Your task to perform on an android device: Open location settings Image 0: 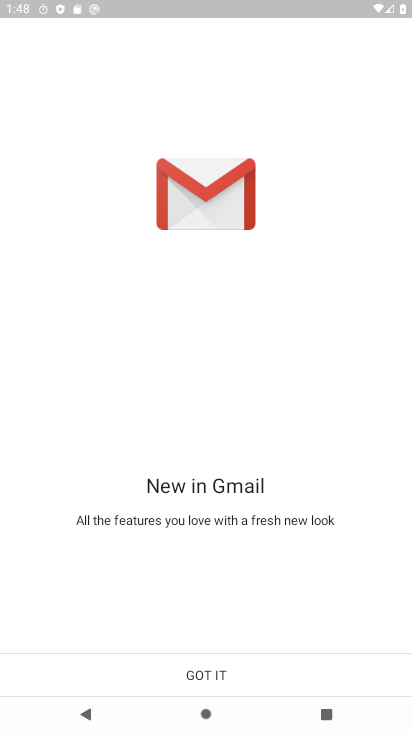
Step 0: press home button
Your task to perform on an android device: Open location settings Image 1: 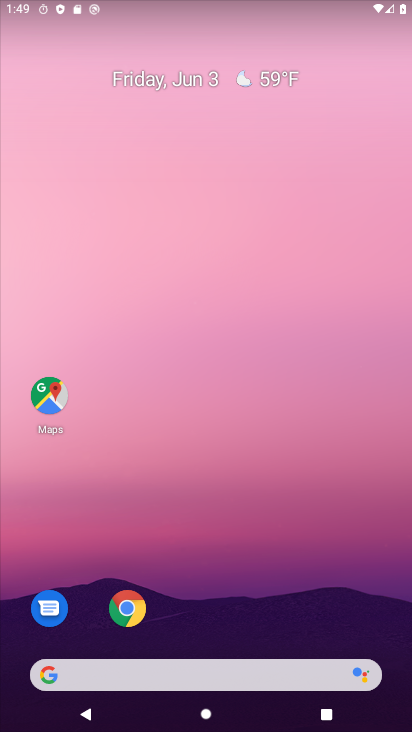
Step 1: drag from (197, 673) to (221, 8)
Your task to perform on an android device: Open location settings Image 2: 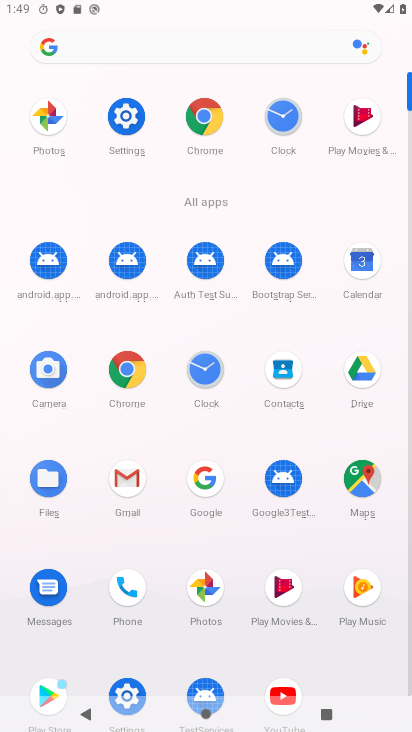
Step 2: click (124, 690)
Your task to perform on an android device: Open location settings Image 3: 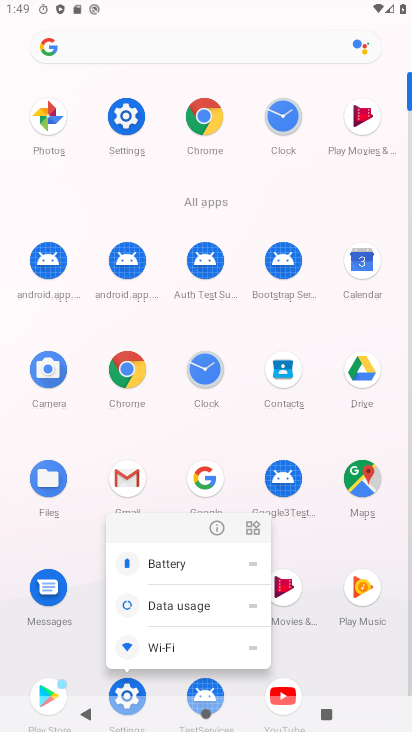
Step 3: click (125, 687)
Your task to perform on an android device: Open location settings Image 4: 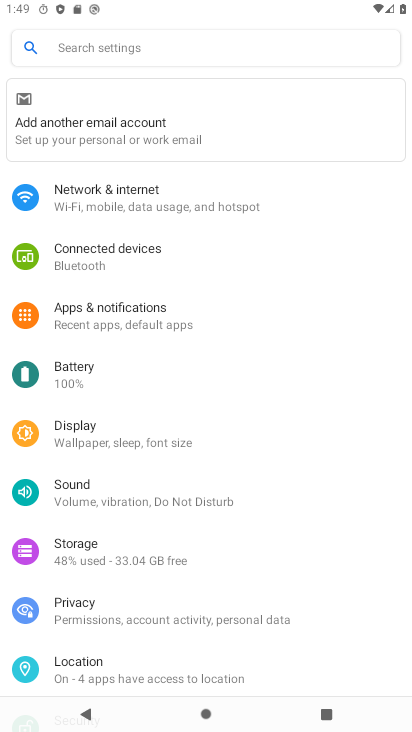
Step 4: click (113, 666)
Your task to perform on an android device: Open location settings Image 5: 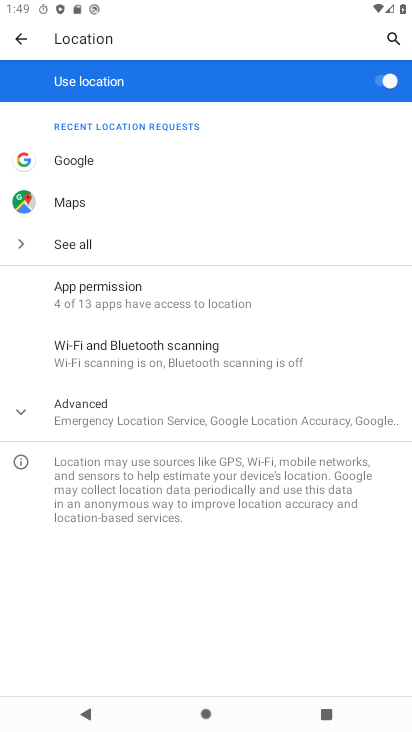
Step 5: task complete